Your task to perform on an android device: delete browsing data in the chrome app Image 0: 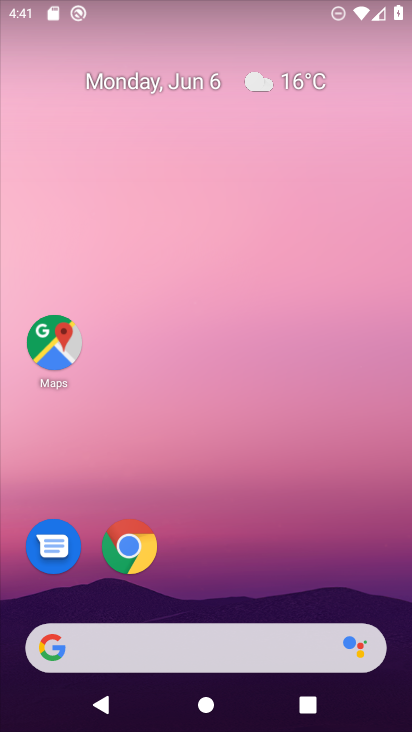
Step 0: drag from (179, 607) to (213, 93)
Your task to perform on an android device: delete browsing data in the chrome app Image 1: 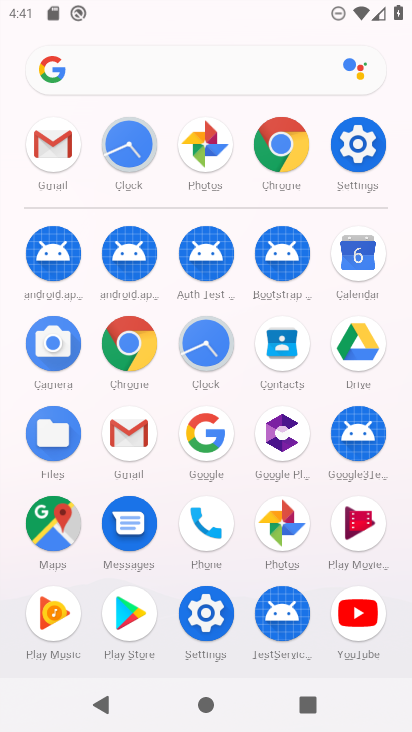
Step 1: click (141, 356)
Your task to perform on an android device: delete browsing data in the chrome app Image 2: 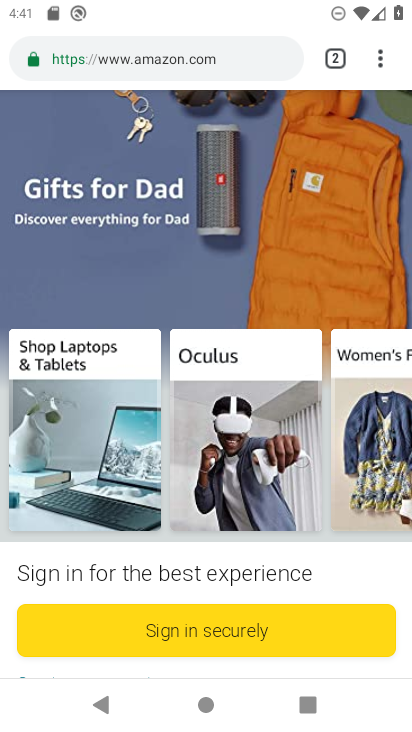
Step 2: click (384, 78)
Your task to perform on an android device: delete browsing data in the chrome app Image 3: 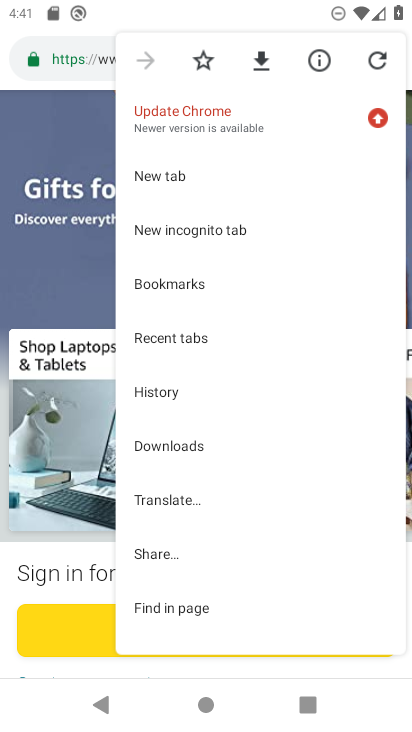
Step 3: drag from (200, 558) to (158, 196)
Your task to perform on an android device: delete browsing data in the chrome app Image 4: 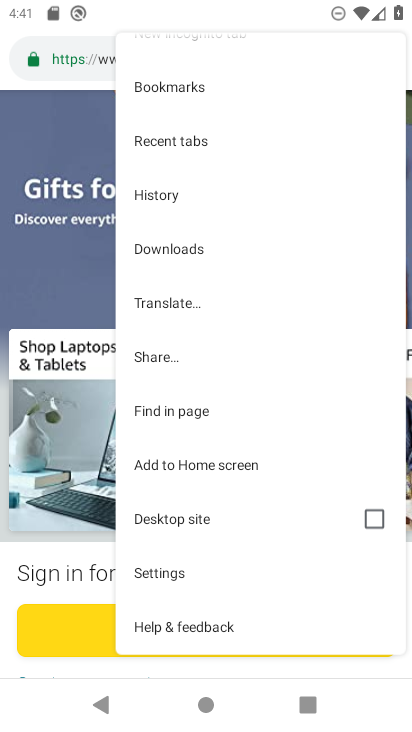
Step 4: click (176, 572)
Your task to perform on an android device: delete browsing data in the chrome app Image 5: 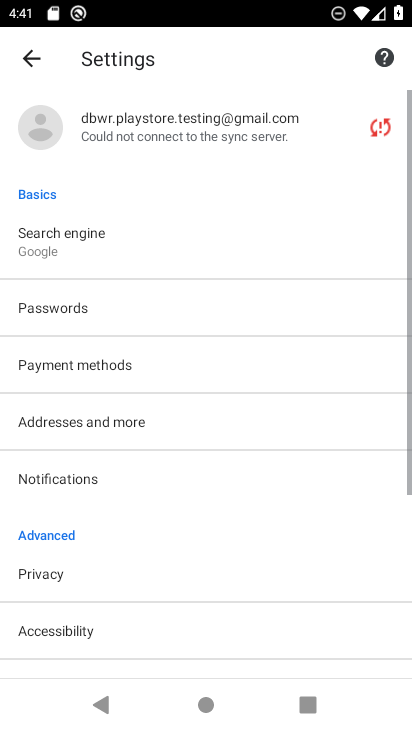
Step 5: drag from (153, 565) to (124, 182)
Your task to perform on an android device: delete browsing data in the chrome app Image 6: 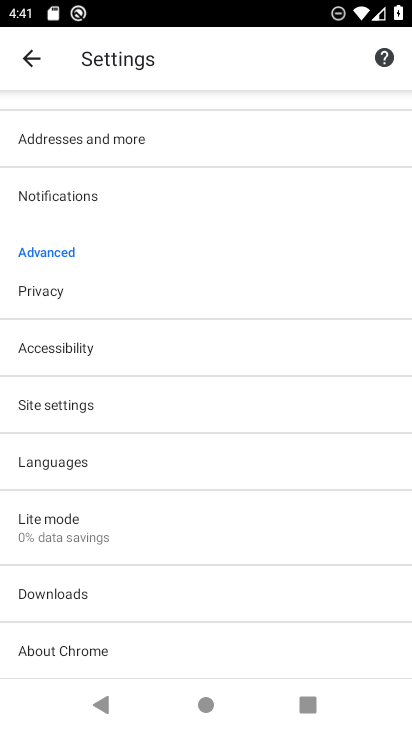
Step 6: drag from (136, 613) to (101, 322)
Your task to perform on an android device: delete browsing data in the chrome app Image 7: 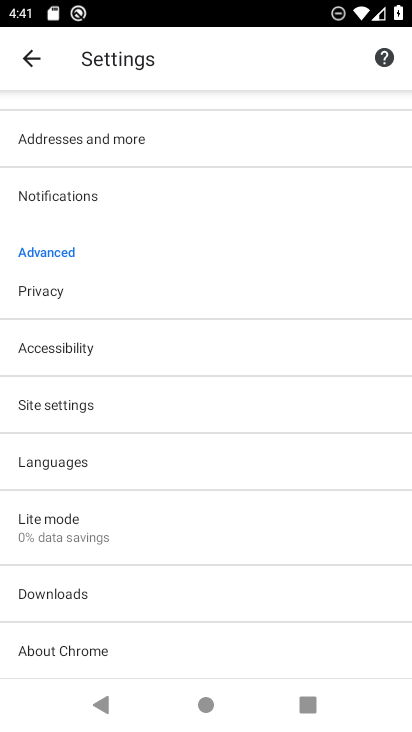
Step 7: click (69, 405)
Your task to perform on an android device: delete browsing data in the chrome app Image 8: 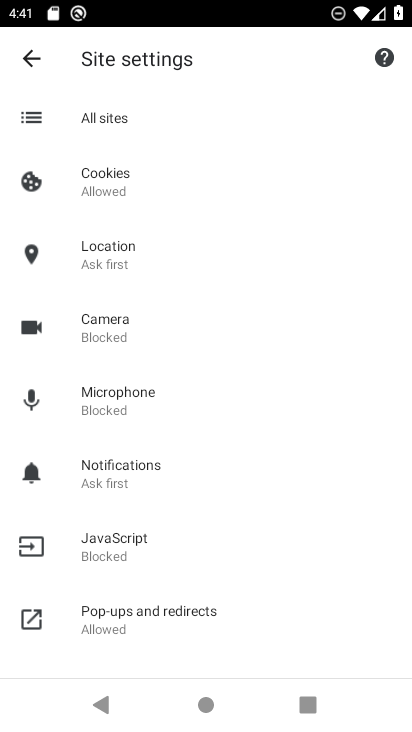
Step 8: click (25, 60)
Your task to perform on an android device: delete browsing data in the chrome app Image 9: 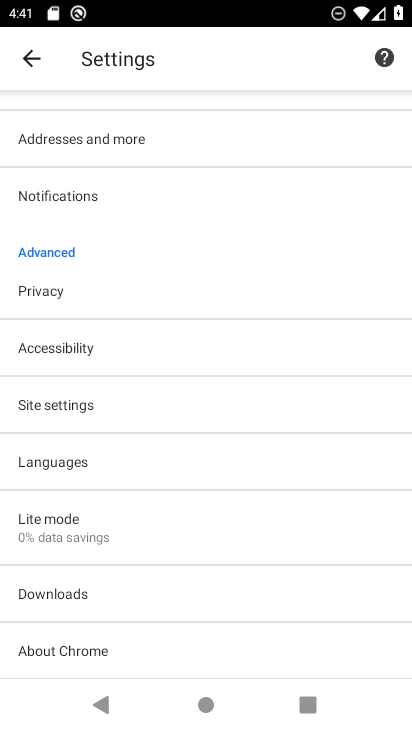
Step 9: click (45, 282)
Your task to perform on an android device: delete browsing data in the chrome app Image 10: 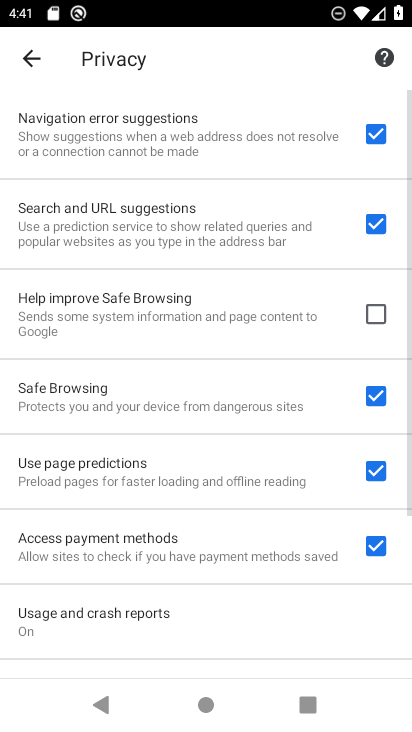
Step 10: drag from (163, 597) to (106, 23)
Your task to perform on an android device: delete browsing data in the chrome app Image 11: 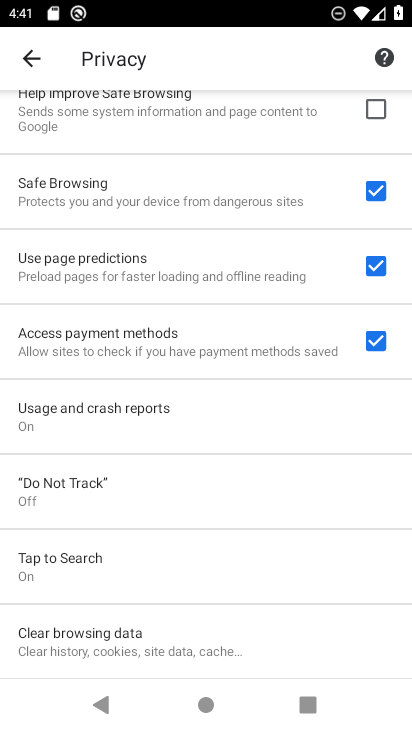
Step 11: click (102, 643)
Your task to perform on an android device: delete browsing data in the chrome app Image 12: 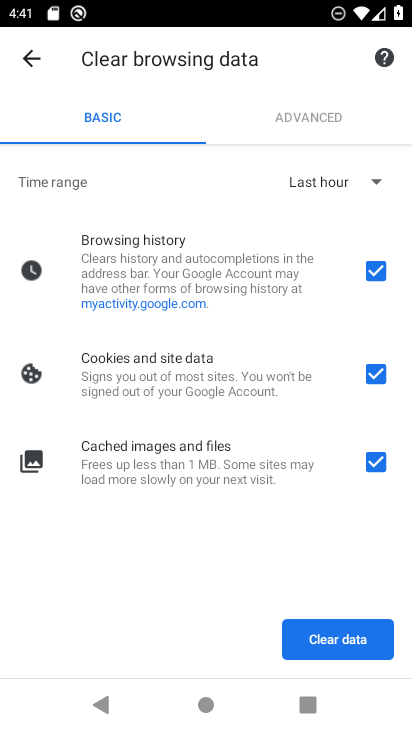
Step 12: click (354, 636)
Your task to perform on an android device: delete browsing data in the chrome app Image 13: 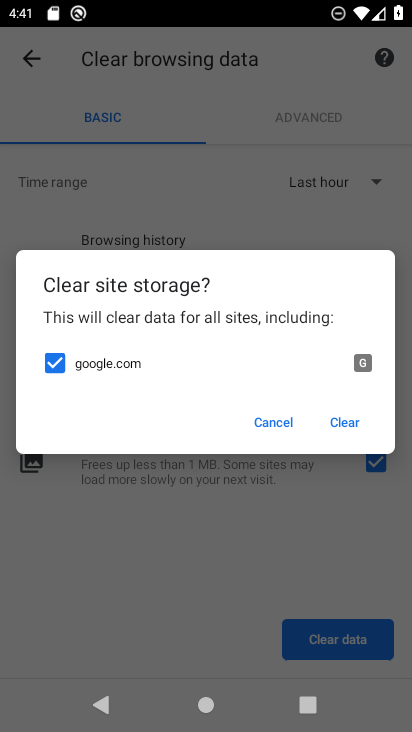
Step 13: click (350, 426)
Your task to perform on an android device: delete browsing data in the chrome app Image 14: 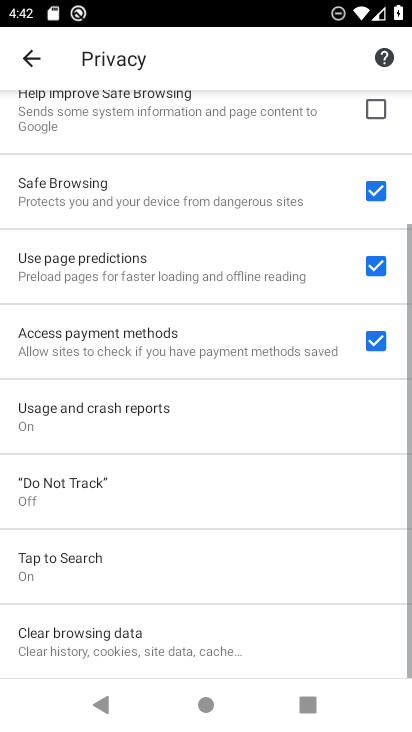
Step 14: task complete